Your task to perform on an android device: visit the assistant section in the google photos Image 0: 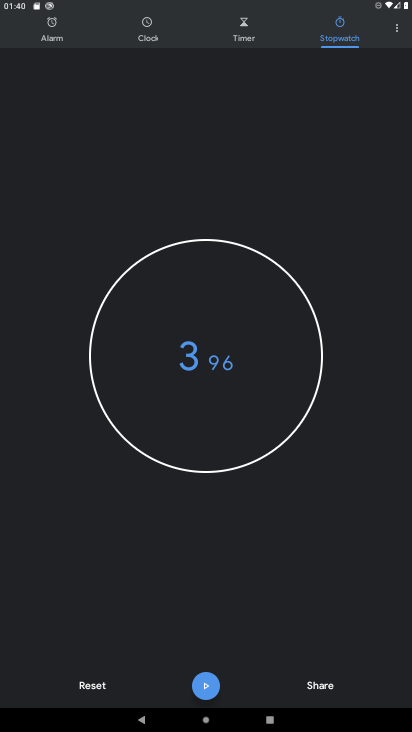
Step 0: press home button
Your task to perform on an android device: visit the assistant section in the google photos Image 1: 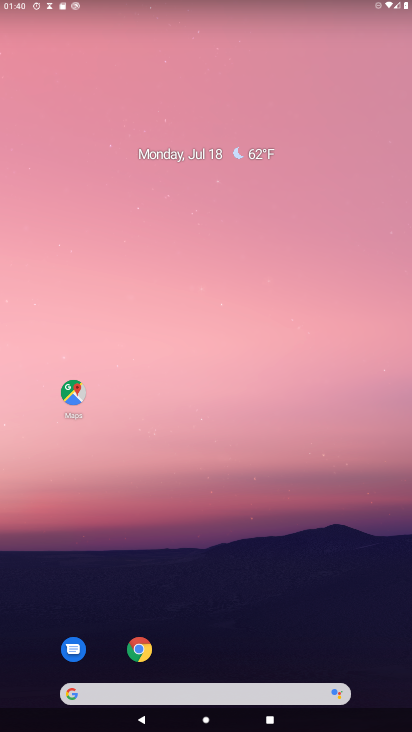
Step 1: drag from (138, 482) to (340, 168)
Your task to perform on an android device: visit the assistant section in the google photos Image 2: 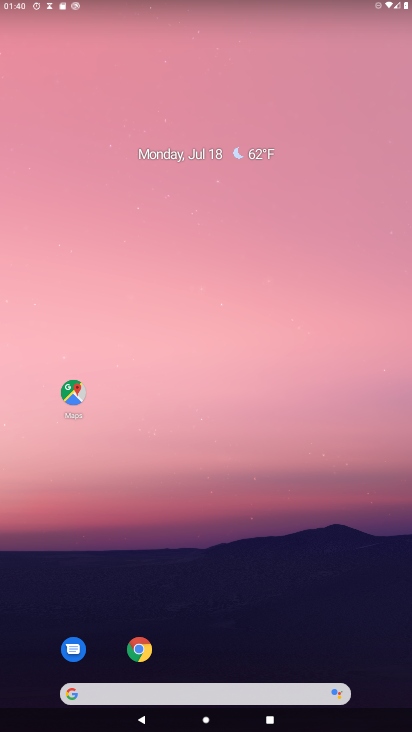
Step 2: drag from (15, 716) to (391, 7)
Your task to perform on an android device: visit the assistant section in the google photos Image 3: 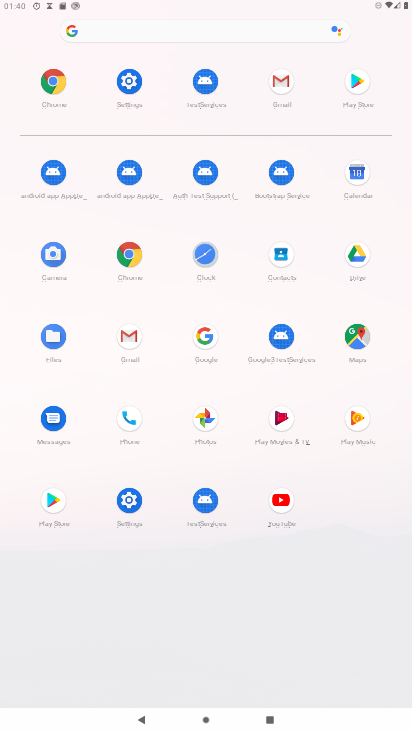
Step 3: click (204, 424)
Your task to perform on an android device: visit the assistant section in the google photos Image 4: 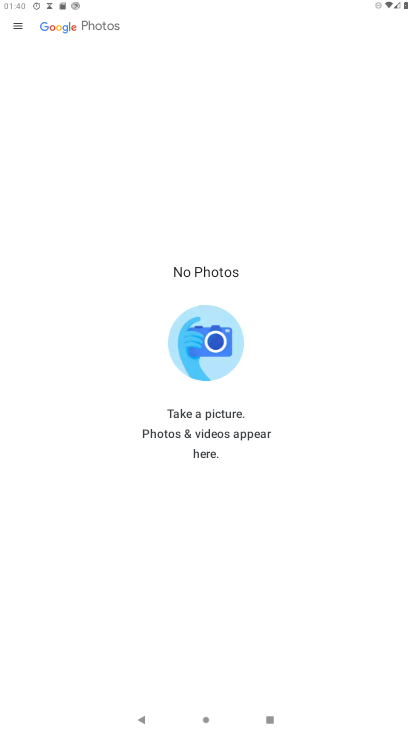
Step 4: task complete